Your task to perform on an android device: Open Chrome and go to settings Image 0: 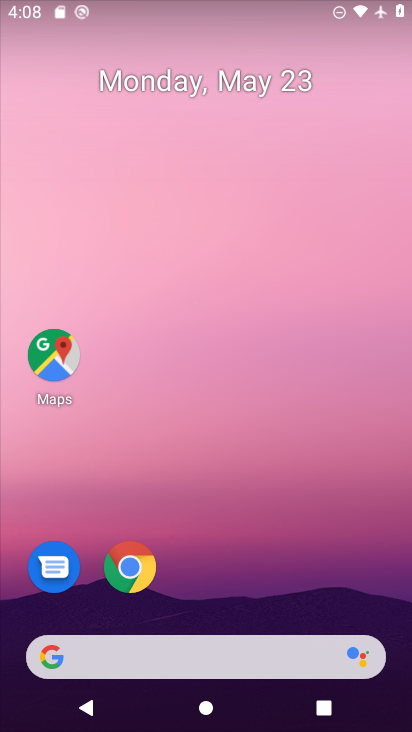
Step 0: click (134, 569)
Your task to perform on an android device: Open Chrome and go to settings Image 1: 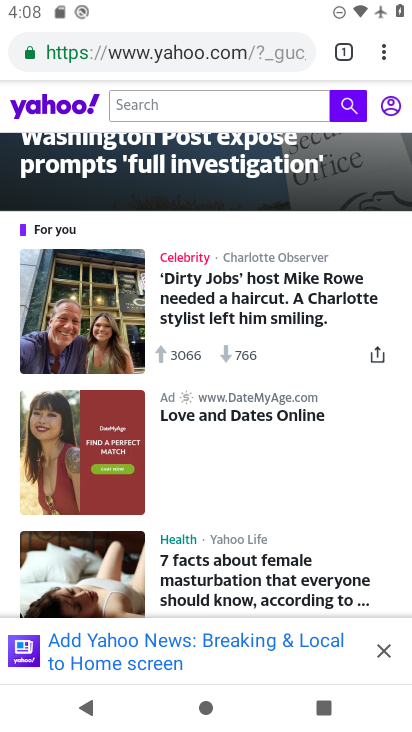
Step 1: click (382, 50)
Your task to perform on an android device: Open Chrome and go to settings Image 2: 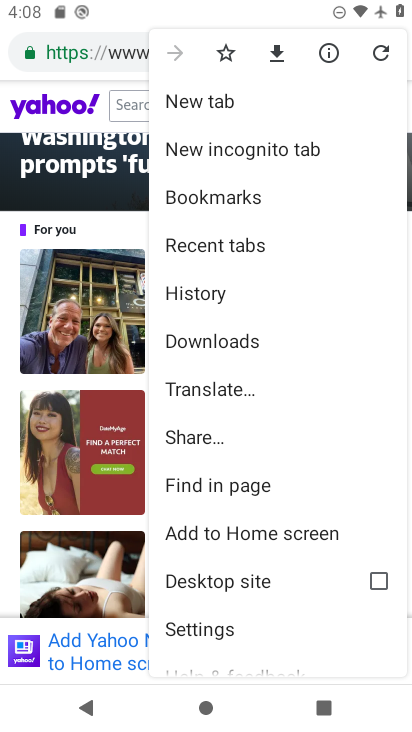
Step 2: click (225, 630)
Your task to perform on an android device: Open Chrome and go to settings Image 3: 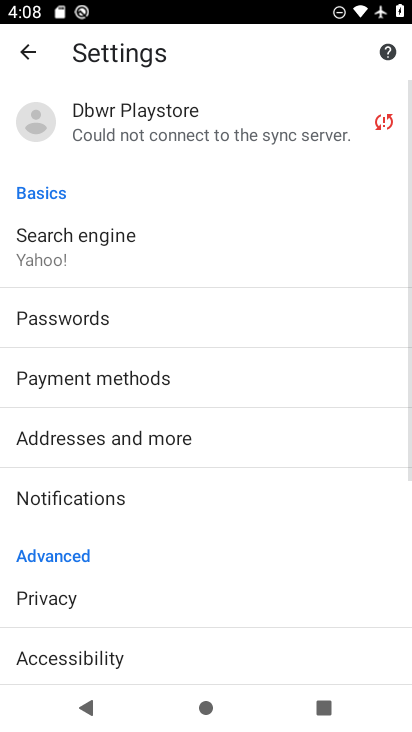
Step 3: task complete